Your task to perform on an android device: turn vacation reply on in the gmail app Image 0: 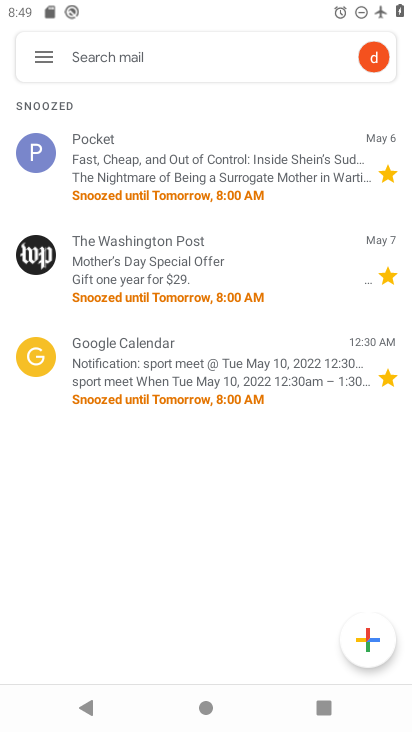
Step 0: click (54, 64)
Your task to perform on an android device: turn vacation reply on in the gmail app Image 1: 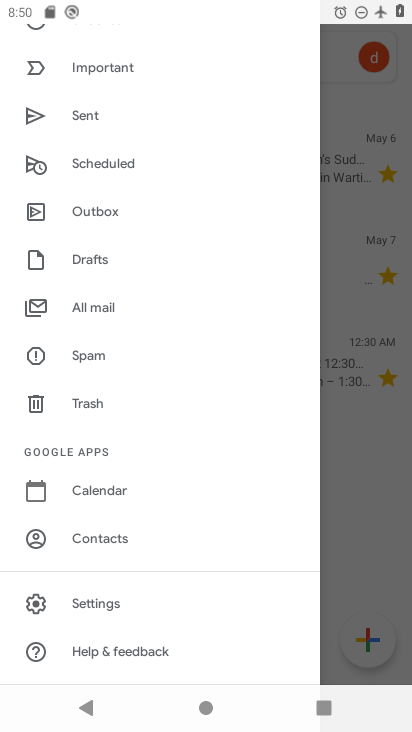
Step 1: click (112, 603)
Your task to perform on an android device: turn vacation reply on in the gmail app Image 2: 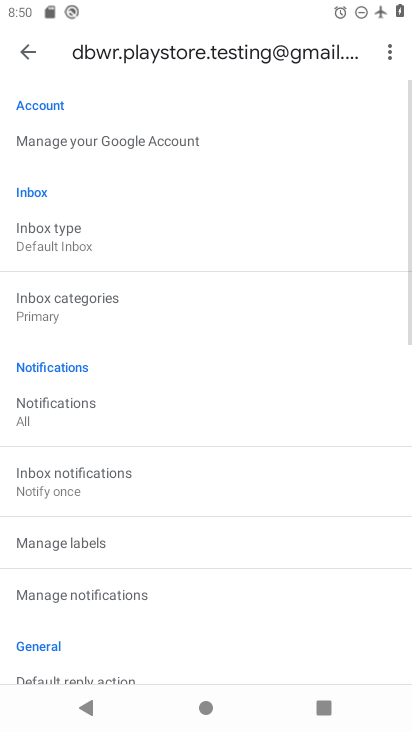
Step 2: drag from (113, 583) to (106, 308)
Your task to perform on an android device: turn vacation reply on in the gmail app Image 3: 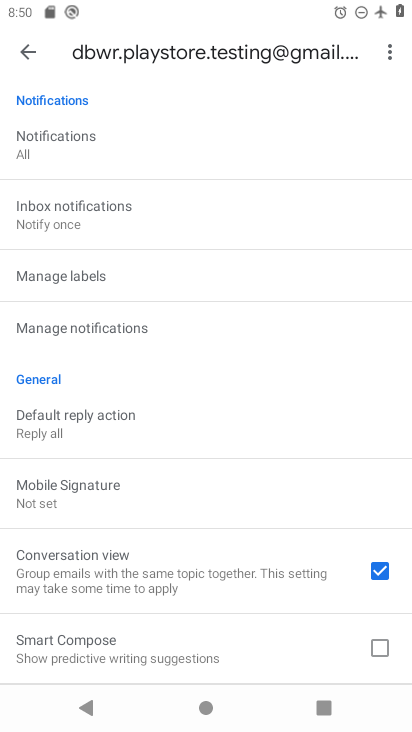
Step 3: drag from (104, 621) to (166, 295)
Your task to perform on an android device: turn vacation reply on in the gmail app Image 4: 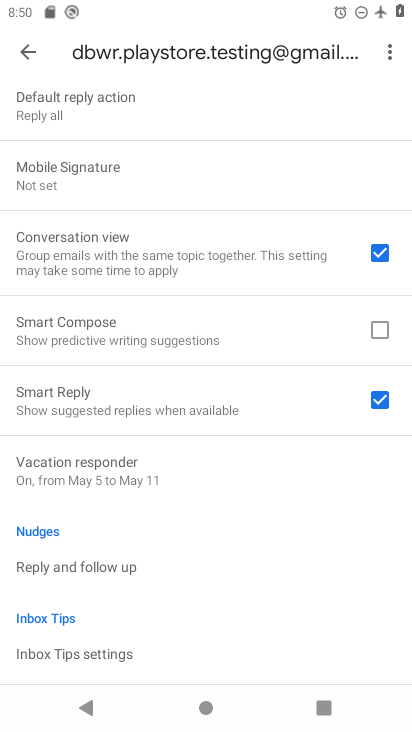
Step 4: click (119, 487)
Your task to perform on an android device: turn vacation reply on in the gmail app Image 5: 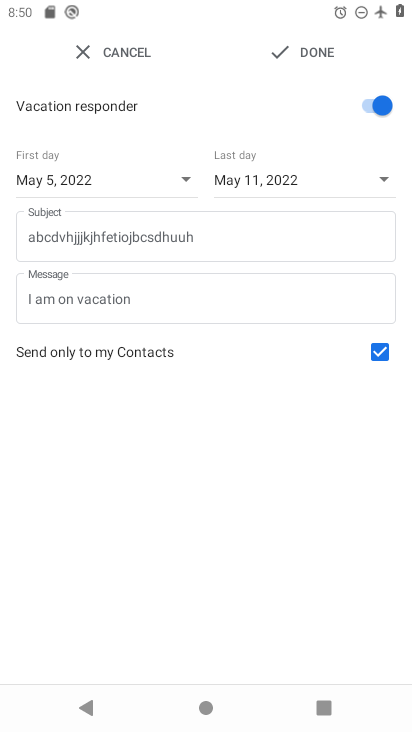
Step 5: task complete